Your task to perform on an android device: turn on airplane mode Image 0: 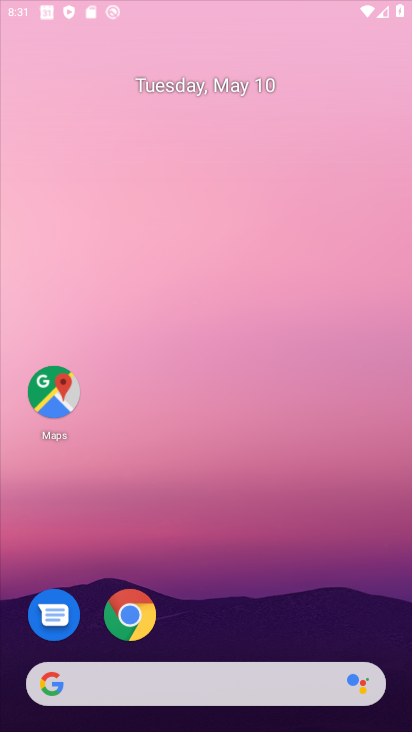
Step 0: drag from (178, 448) to (195, 252)
Your task to perform on an android device: turn on airplane mode Image 1: 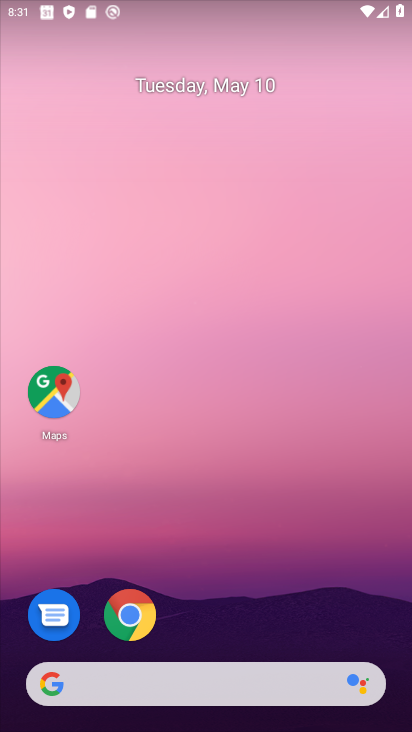
Step 1: drag from (228, 650) to (265, 81)
Your task to perform on an android device: turn on airplane mode Image 2: 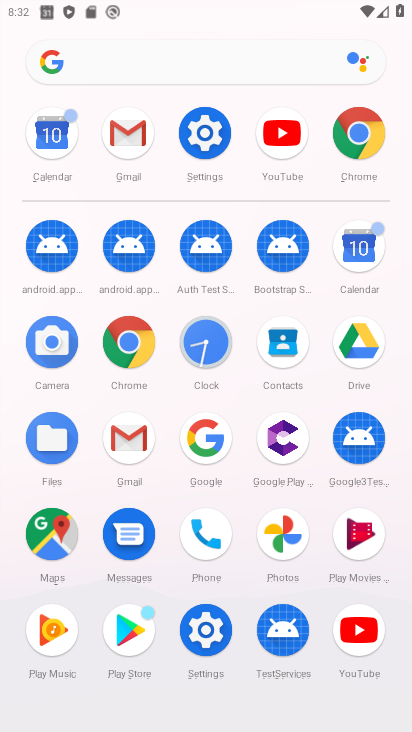
Step 2: click (206, 128)
Your task to perform on an android device: turn on airplane mode Image 3: 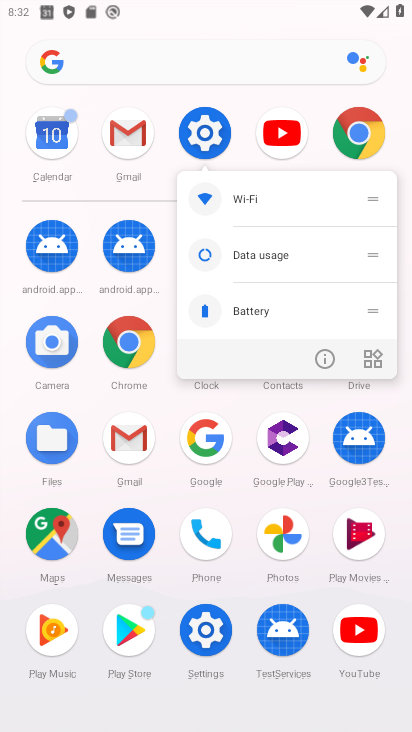
Step 3: click (321, 359)
Your task to perform on an android device: turn on airplane mode Image 4: 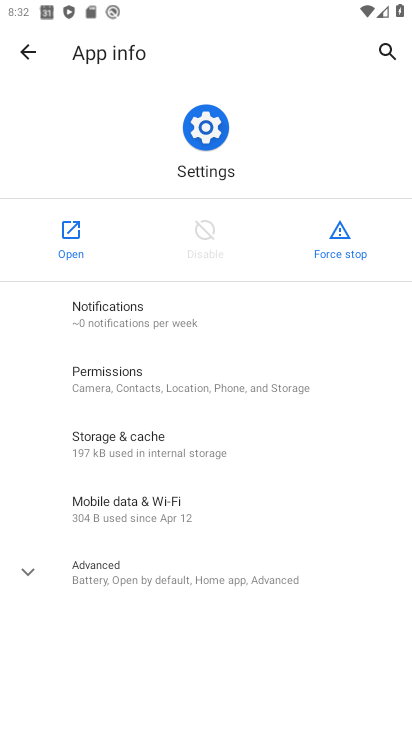
Step 4: click (74, 246)
Your task to perform on an android device: turn on airplane mode Image 5: 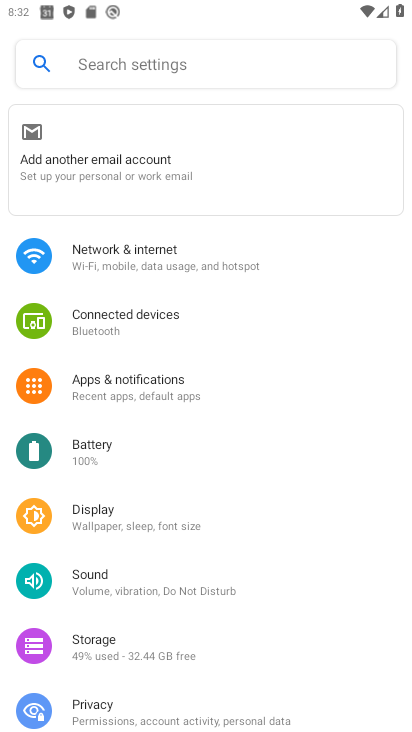
Step 5: click (165, 279)
Your task to perform on an android device: turn on airplane mode Image 6: 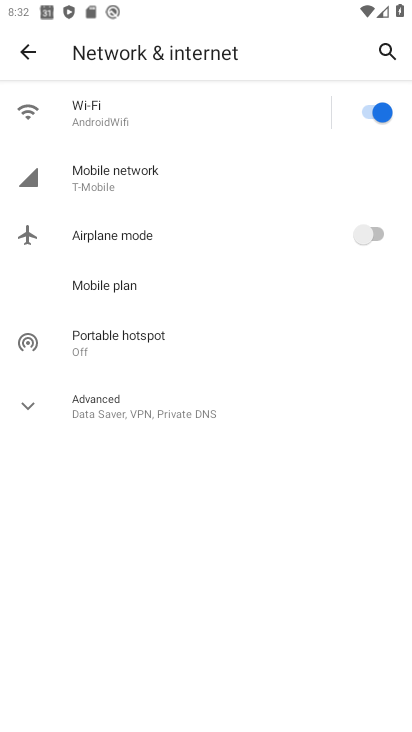
Step 6: click (301, 230)
Your task to perform on an android device: turn on airplane mode Image 7: 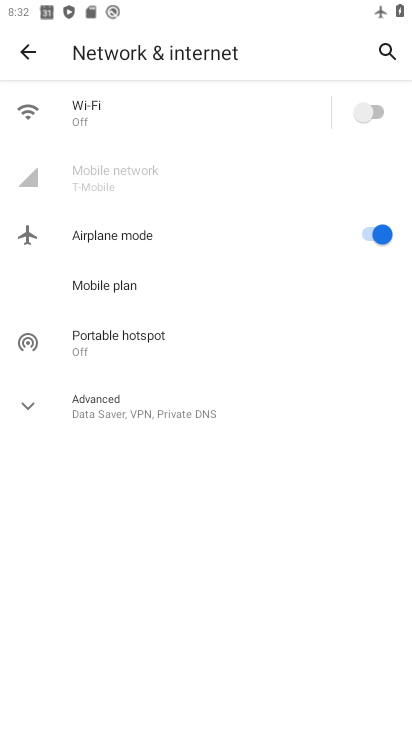
Step 7: task complete